Your task to perform on an android device: check data usage Image 0: 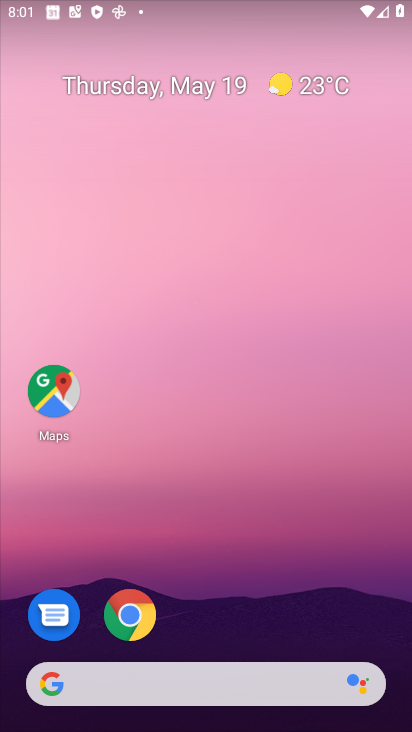
Step 0: drag from (332, 604) to (321, 0)
Your task to perform on an android device: check data usage Image 1: 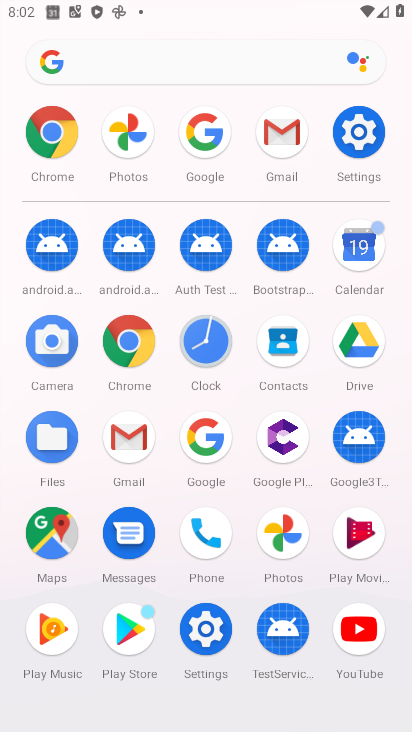
Step 1: click (209, 619)
Your task to perform on an android device: check data usage Image 2: 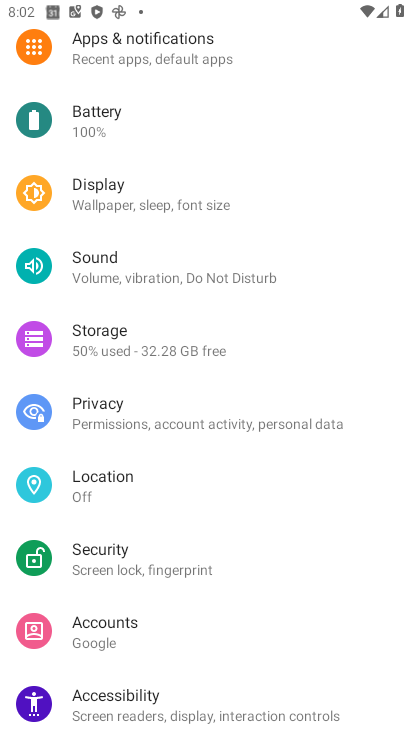
Step 2: drag from (172, 65) to (215, 658)
Your task to perform on an android device: check data usage Image 3: 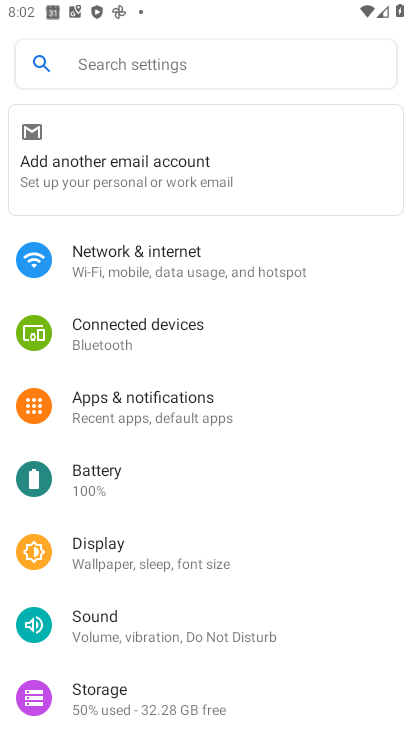
Step 3: click (147, 268)
Your task to perform on an android device: check data usage Image 4: 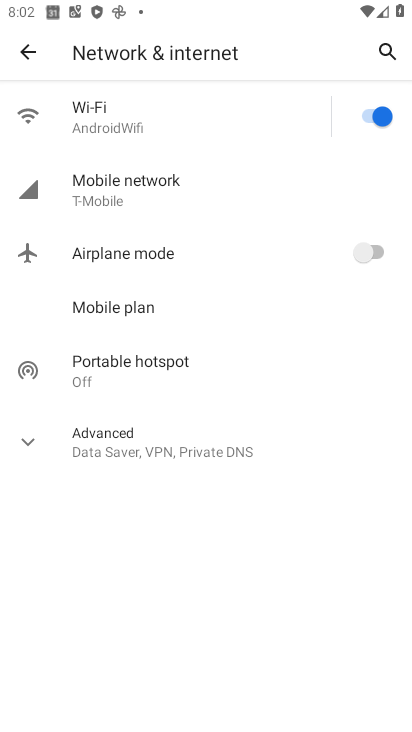
Step 4: click (133, 167)
Your task to perform on an android device: check data usage Image 5: 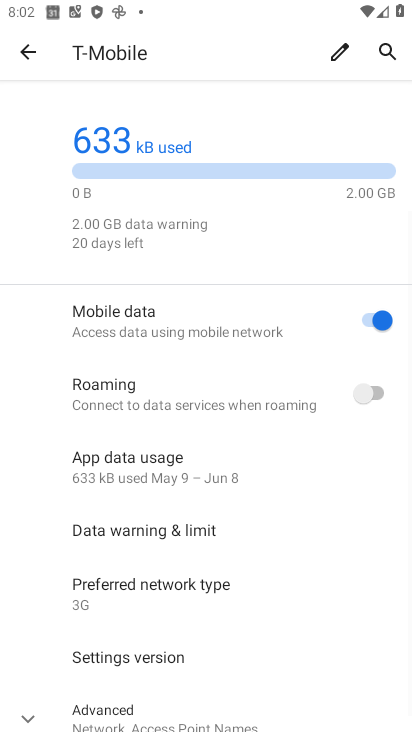
Step 5: click (160, 464)
Your task to perform on an android device: check data usage Image 6: 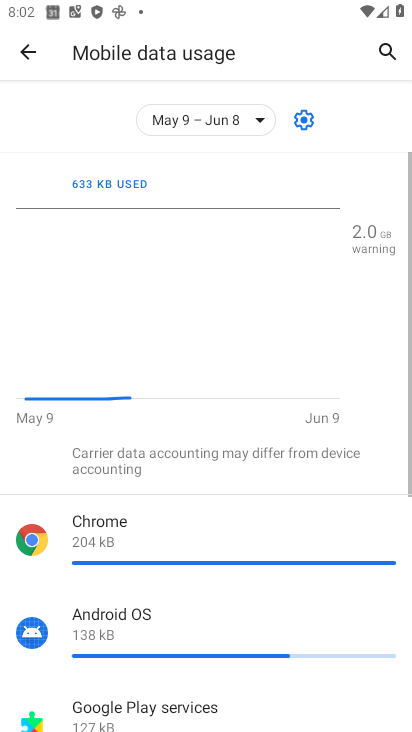
Step 6: task complete